Your task to perform on an android device: check google app version Image 0: 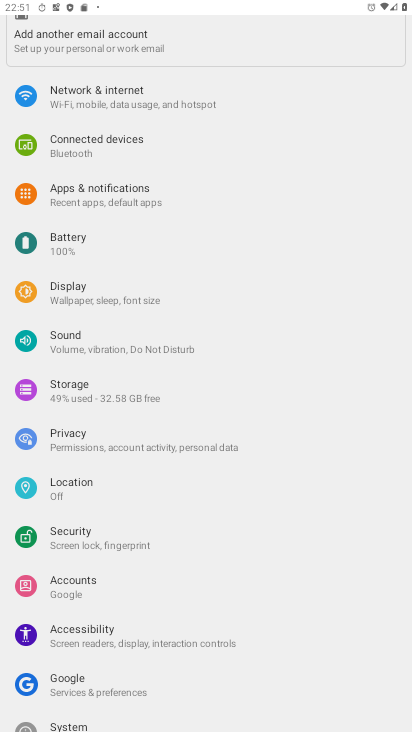
Step 0: press home button
Your task to perform on an android device: check google app version Image 1: 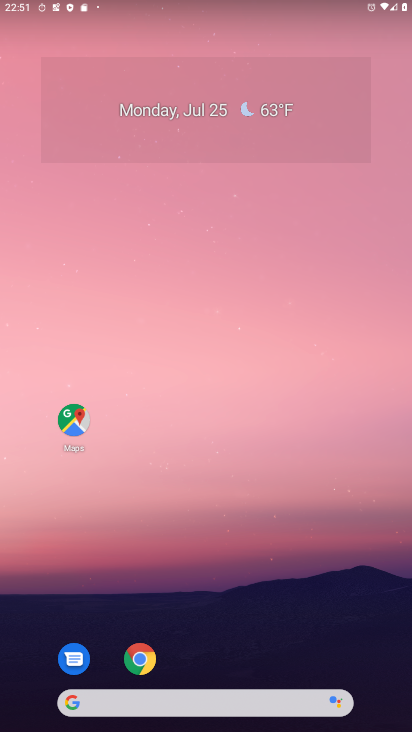
Step 1: drag from (207, 661) to (206, 210)
Your task to perform on an android device: check google app version Image 2: 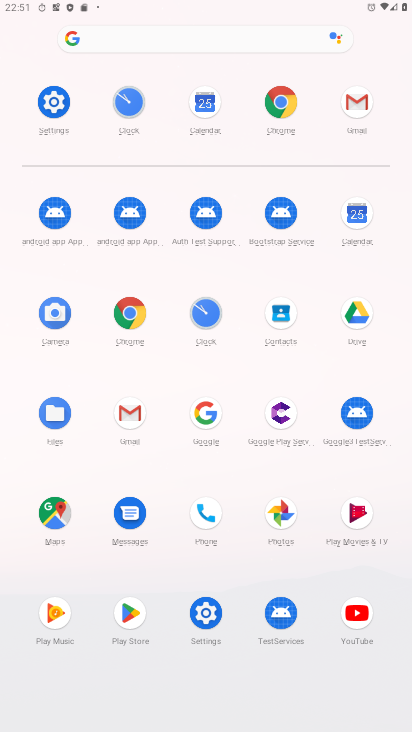
Step 2: click (200, 413)
Your task to perform on an android device: check google app version Image 3: 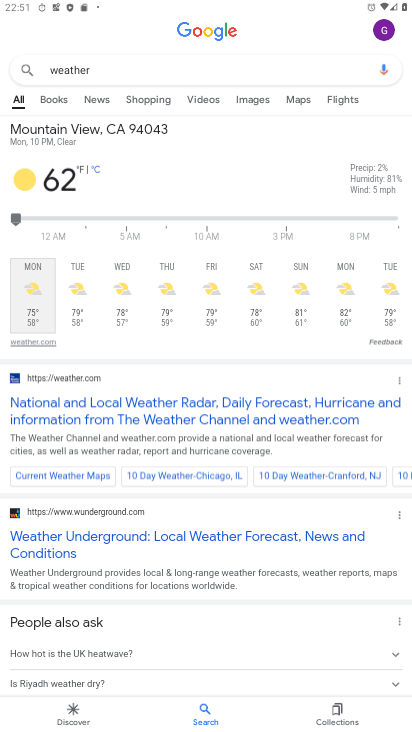
Step 3: click (384, 28)
Your task to perform on an android device: check google app version Image 4: 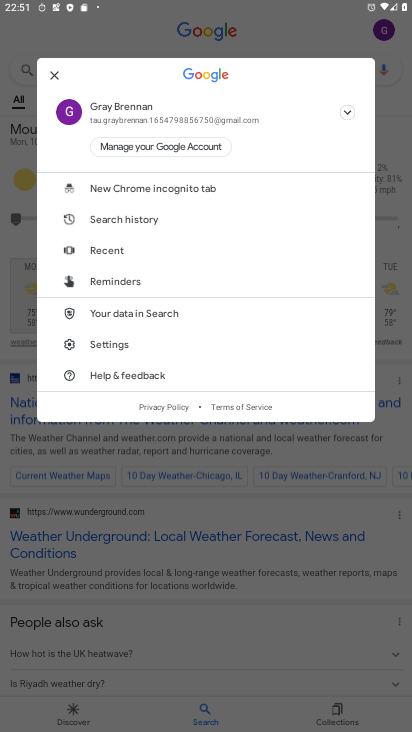
Step 4: click (109, 346)
Your task to perform on an android device: check google app version Image 5: 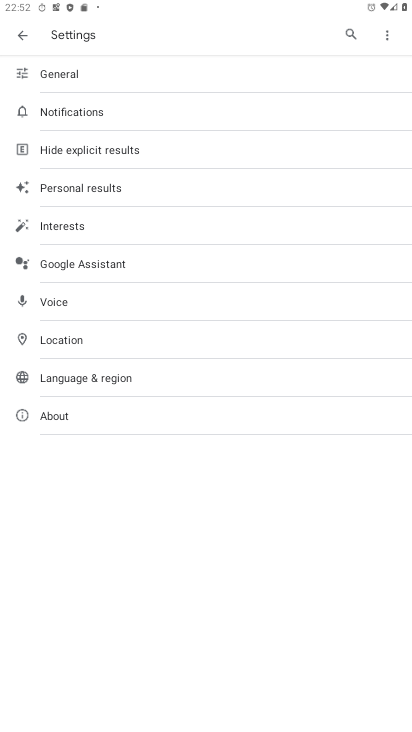
Step 5: click (55, 412)
Your task to perform on an android device: check google app version Image 6: 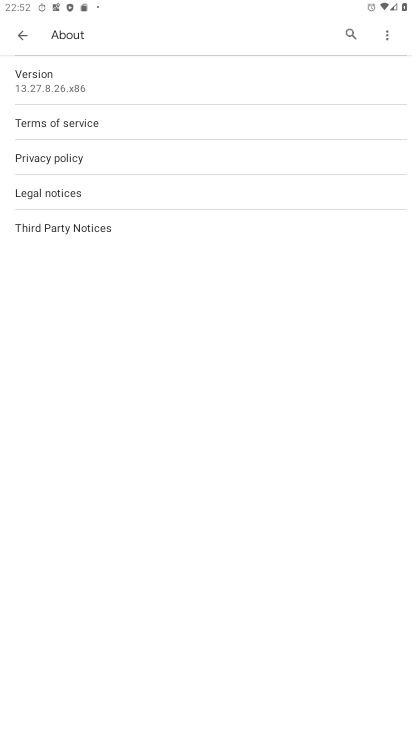
Step 6: task complete